Your task to perform on an android device: What's on my calendar tomorrow? Image 0: 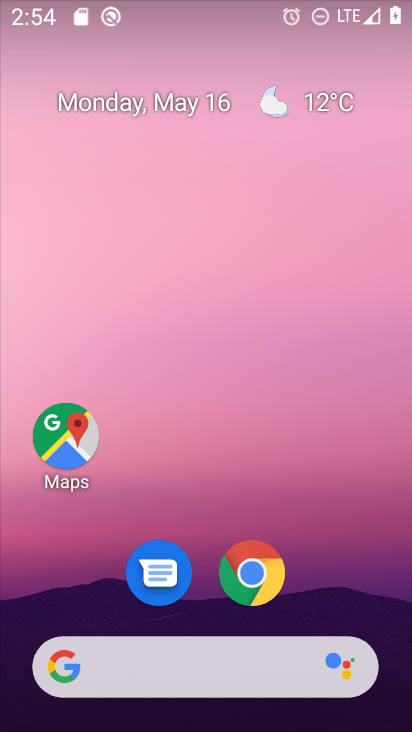
Step 0: drag from (201, 662) to (160, 62)
Your task to perform on an android device: What's on my calendar tomorrow? Image 1: 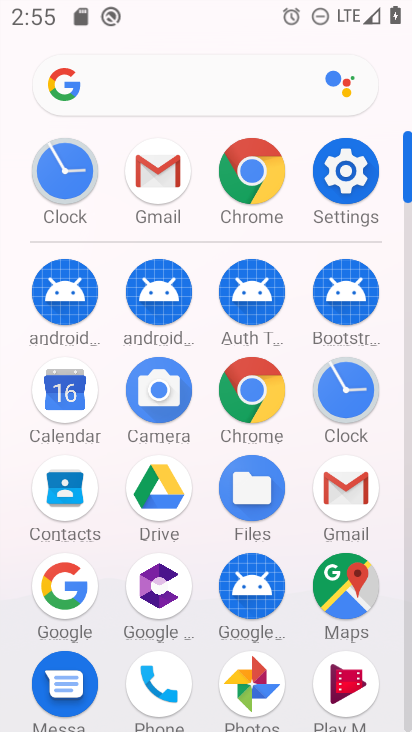
Step 1: click (87, 412)
Your task to perform on an android device: What's on my calendar tomorrow? Image 2: 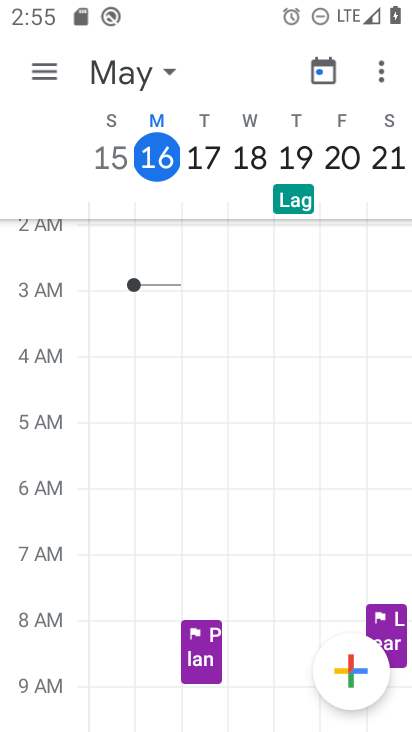
Step 2: click (41, 74)
Your task to perform on an android device: What's on my calendar tomorrow? Image 3: 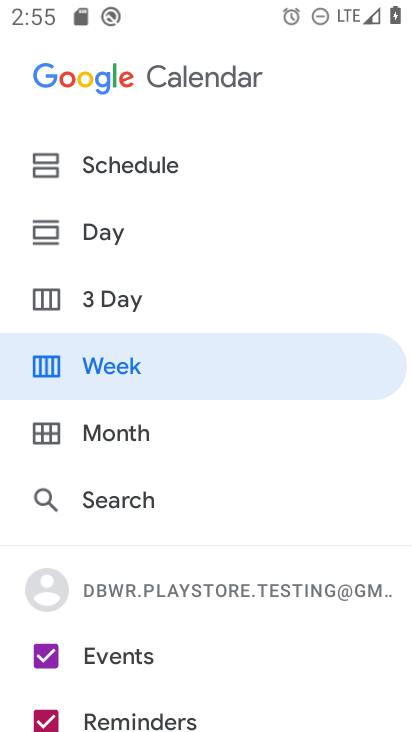
Step 3: click (145, 162)
Your task to perform on an android device: What's on my calendar tomorrow? Image 4: 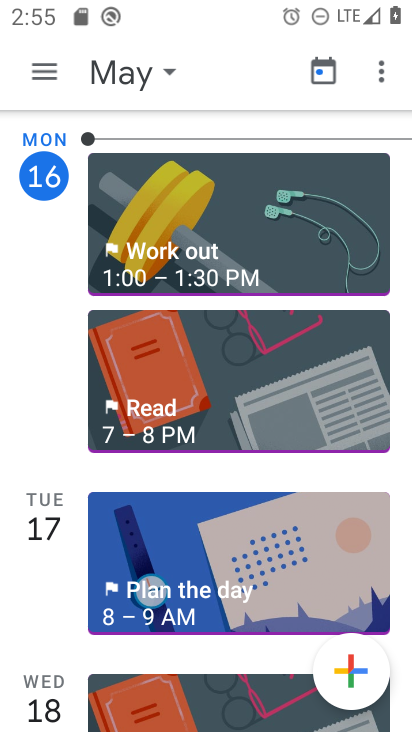
Step 4: task complete